Your task to perform on an android device: Is it going to rain tomorrow? Image 0: 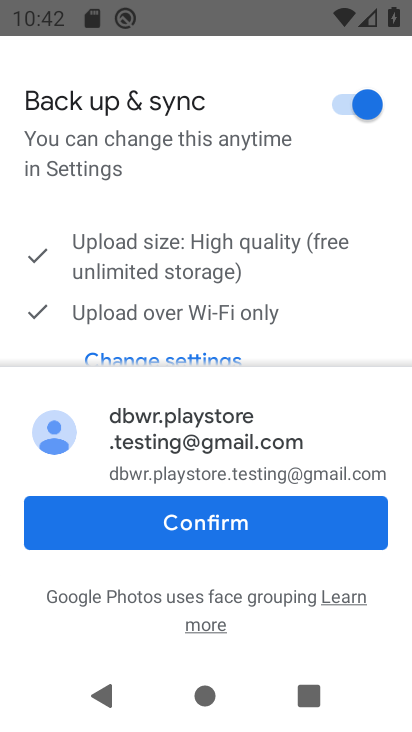
Step 0: press home button
Your task to perform on an android device: Is it going to rain tomorrow? Image 1: 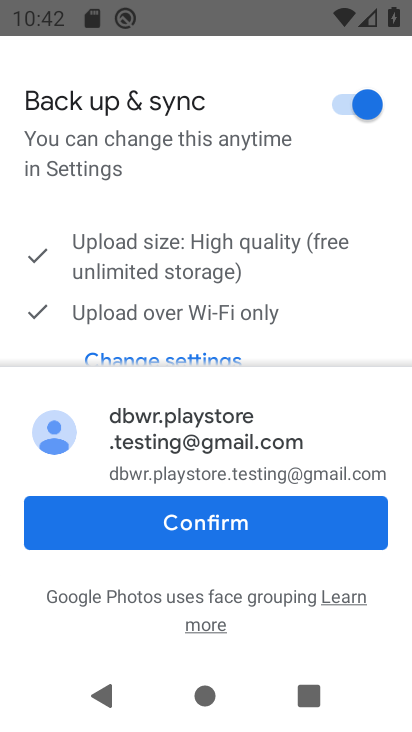
Step 1: press home button
Your task to perform on an android device: Is it going to rain tomorrow? Image 2: 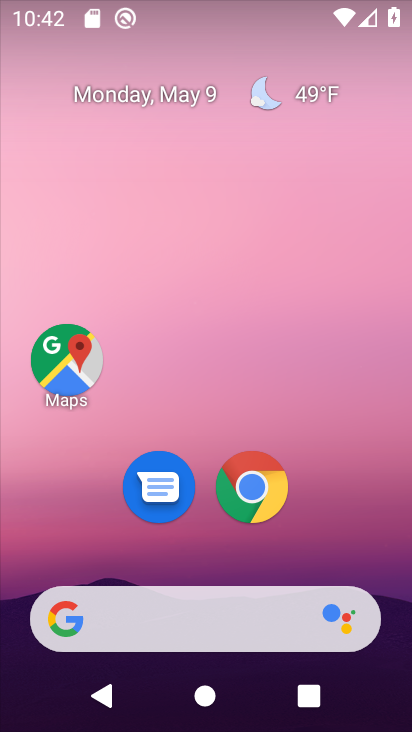
Step 2: click (242, 476)
Your task to perform on an android device: Is it going to rain tomorrow? Image 3: 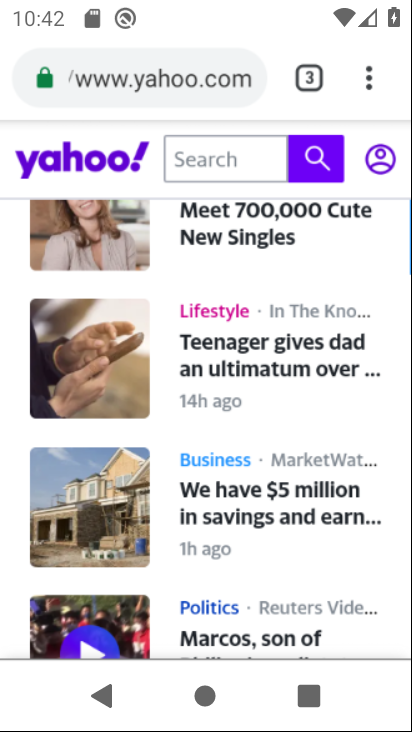
Step 3: click (306, 73)
Your task to perform on an android device: Is it going to rain tomorrow? Image 4: 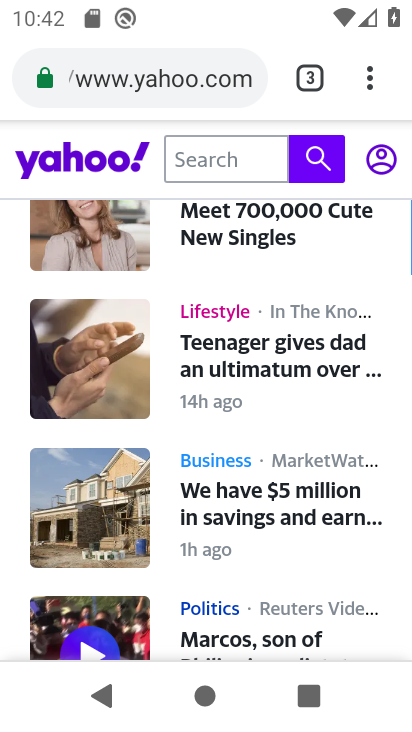
Step 4: click (314, 77)
Your task to perform on an android device: Is it going to rain tomorrow? Image 5: 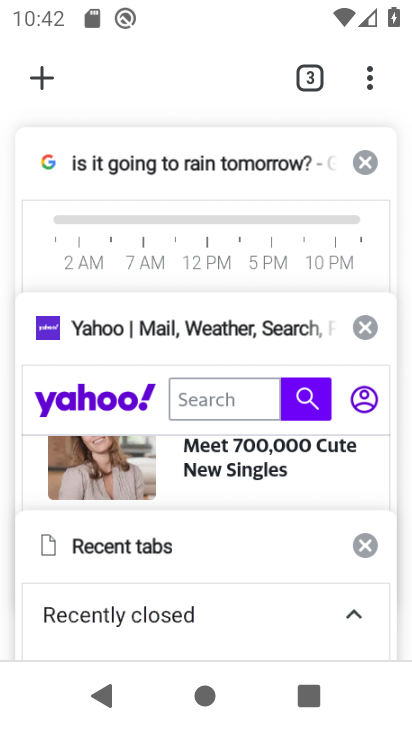
Step 5: click (220, 238)
Your task to perform on an android device: Is it going to rain tomorrow? Image 6: 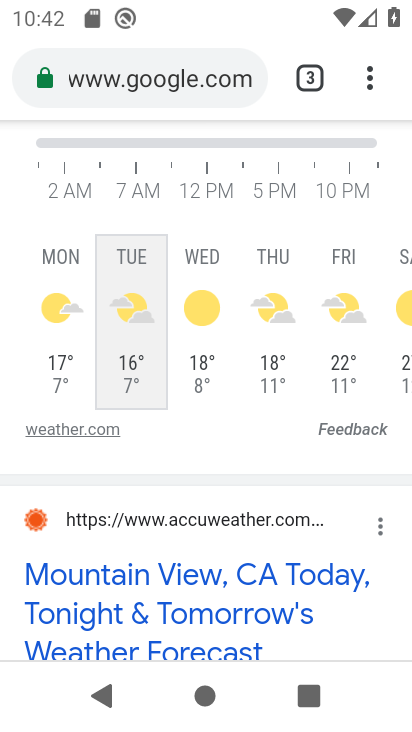
Step 6: task complete